Your task to perform on an android device: Open the Play Movies app and select the watchlist tab. Image 0: 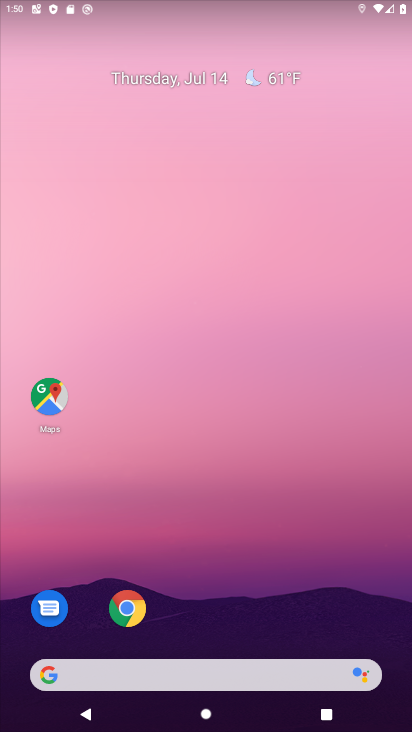
Step 0: drag from (190, 672) to (277, 20)
Your task to perform on an android device: Open the Play Movies app and select the watchlist tab. Image 1: 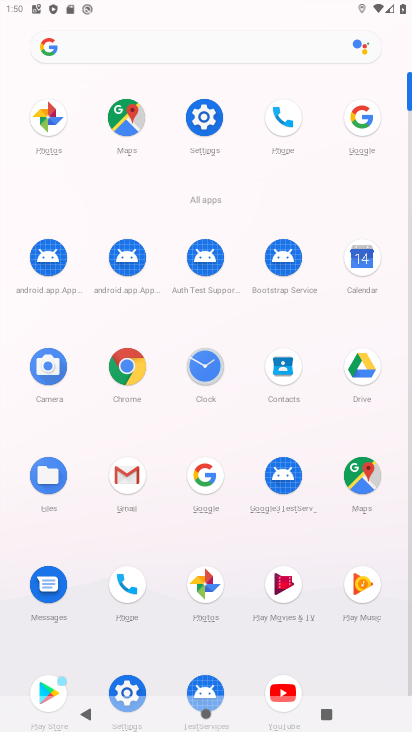
Step 1: click (280, 587)
Your task to perform on an android device: Open the Play Movies app and select the watchlist tab. Image 2: 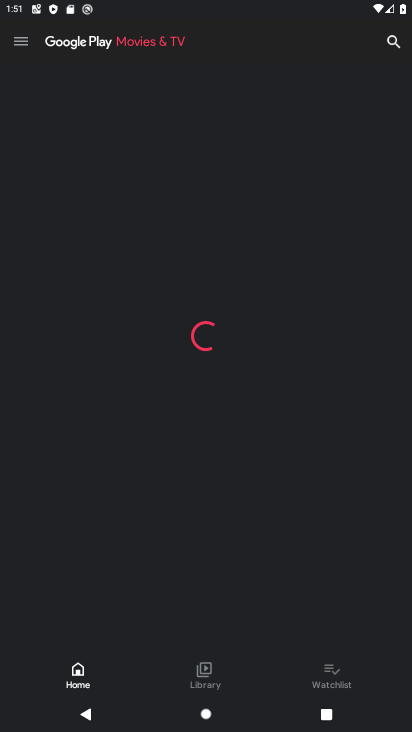
Step 2: click (332, 671)
Your task to perform on an android device: Open the Play Movies app and select the watchlist tab. Image 3: 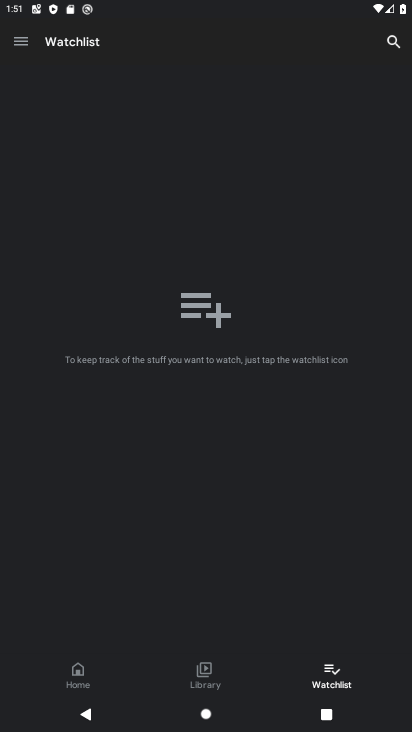
Step 3: task complete